Your task to perform on an android device: set default search engine in the chrome app Image 0: 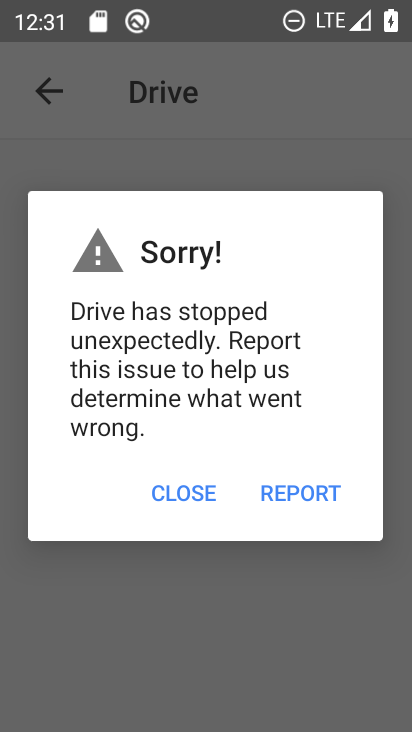
Step 0: press home button
Your task to perform on an android device: set default search engine in the chrome app Image 1: 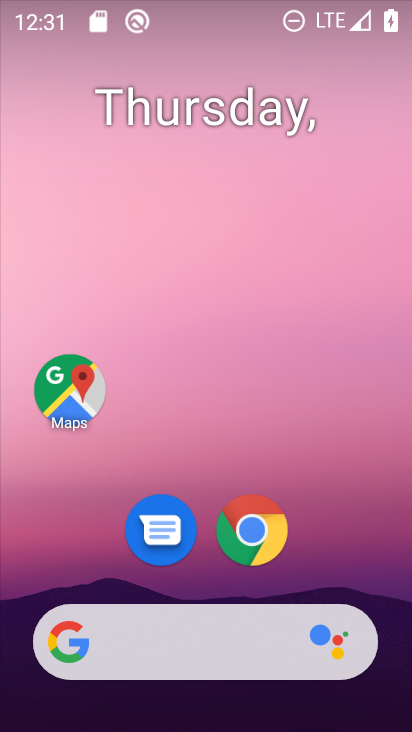
Step 1: click (259, 521)
Your task to perform on an android device: set default search engine in the chrome app Image 2: 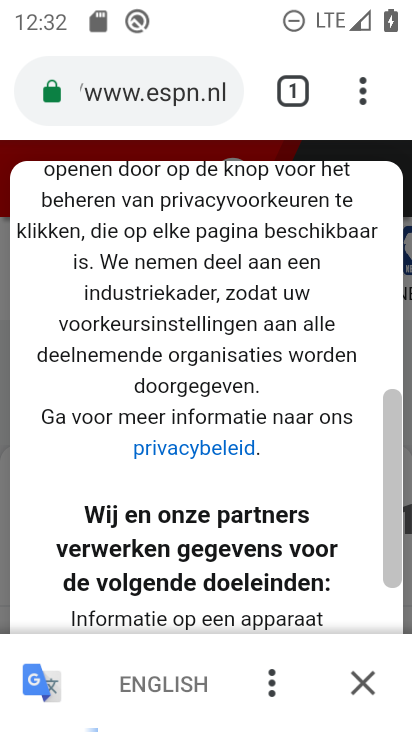
Step 2: drag from (354, 82) to (87, 560)
Your task to perform on an android device: set default search engine in the chrome app Image 3: 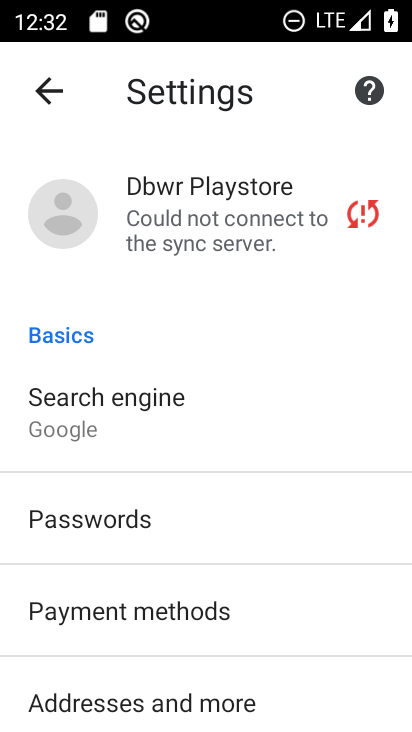
Step 3: click (105, 419)
Your task to perform on an android device: set default search engine in the chrome app Image 4: 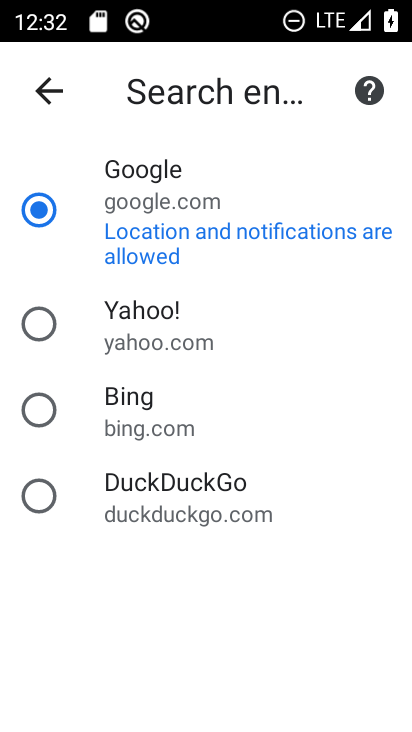
Step 4: click (43, 333)
Your task to perform on an android device: set default search engine in the chrome app Image 5: 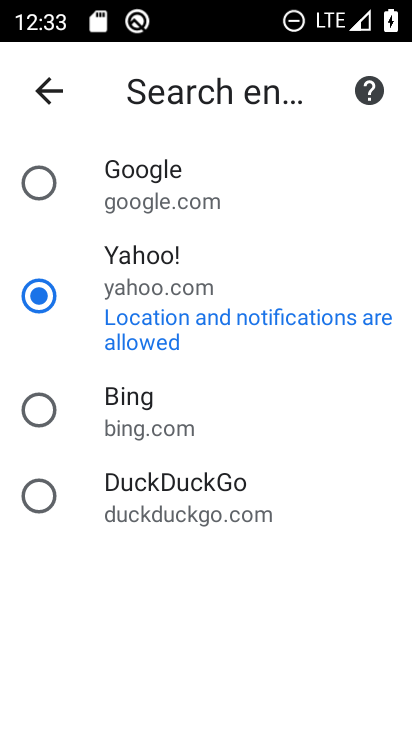
Step 5: task complete